Your task to perform on an android device: set an alarm Image 0: 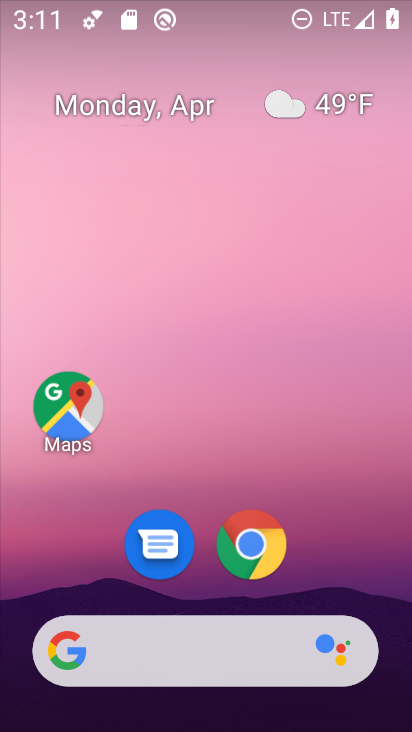
Step 0: drag from (328, 457) to (238, 41)
Your task to perform on an android device: set an alarm Image 1: 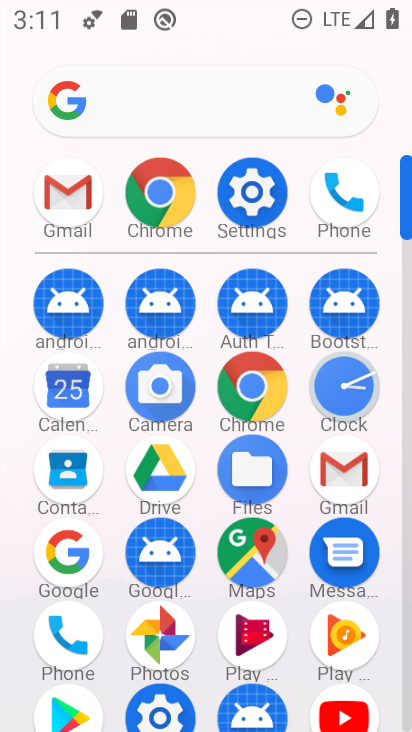
Step 1: click (341, 390)
Your task to perform on an android device: set an alarm Image 2: 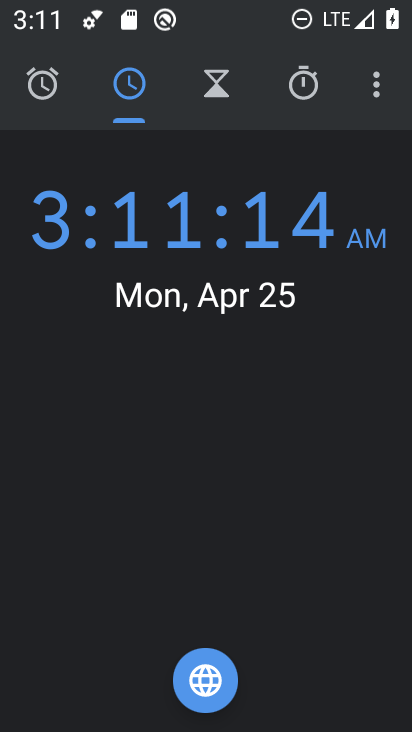
Step 2: click (42, 96)
Your task to perform on an android device: set an alarm Image 3: 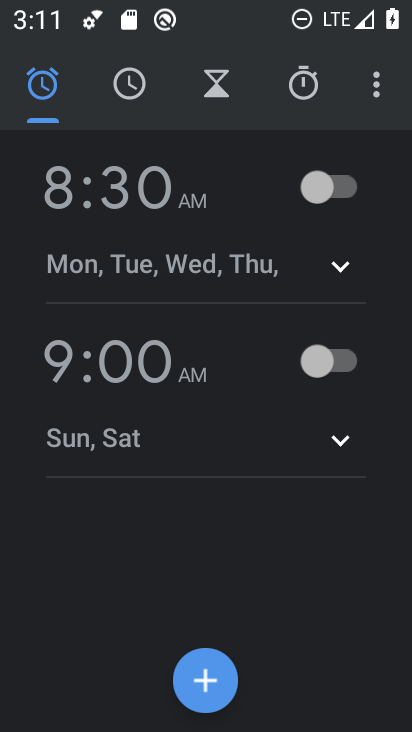
Step 3: click (323, 185)
Your task to perform on an android device: set an alarm Image 4: 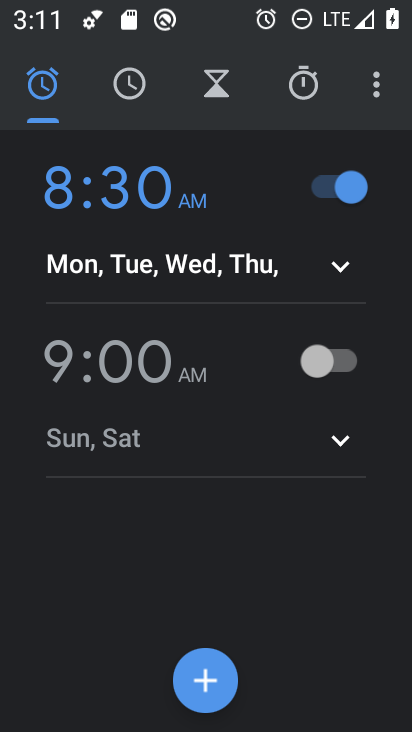
Step 4: task complete